Your task to perform on an android device: Open settings on Google Maps Image 0: 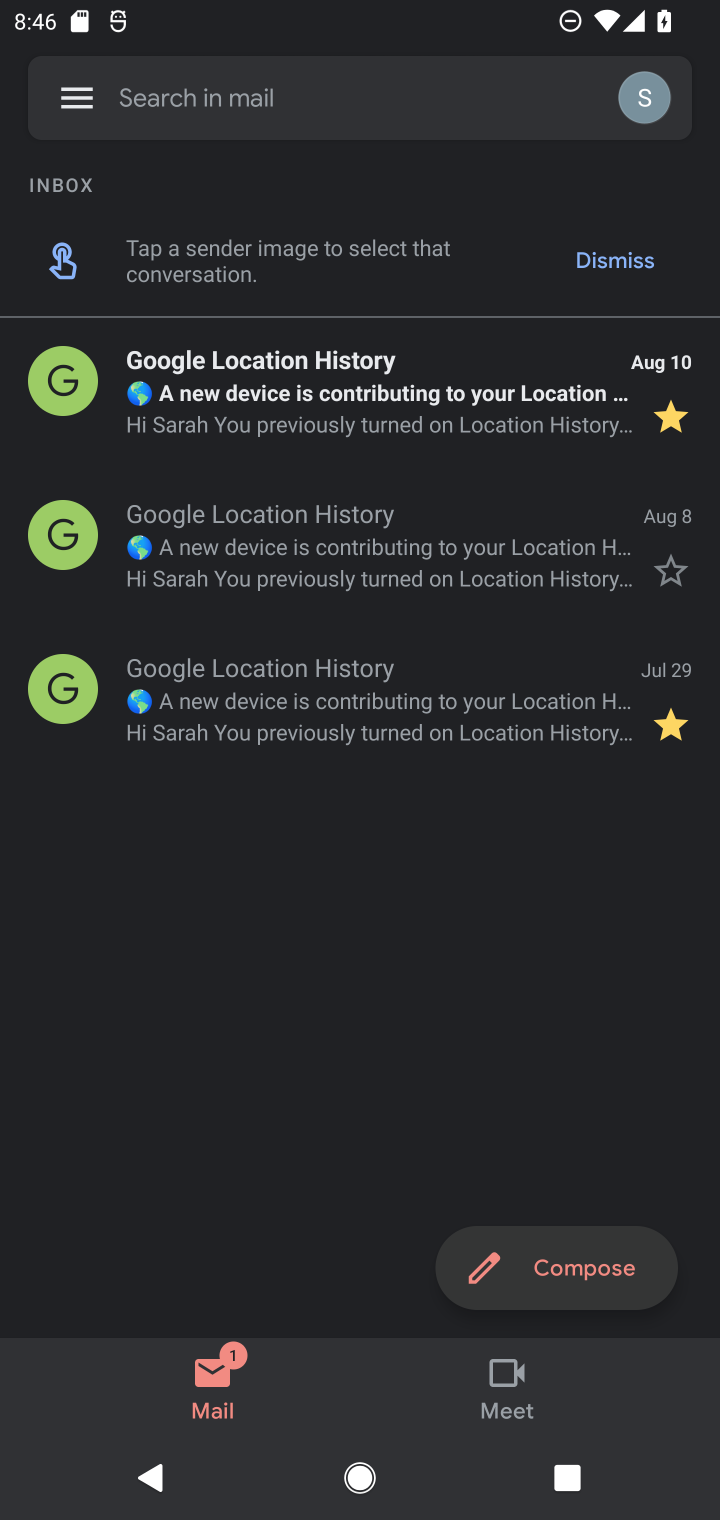
Step 0: press home button
Your task to perform on an android device: Open settings on Google Maps Image 1: 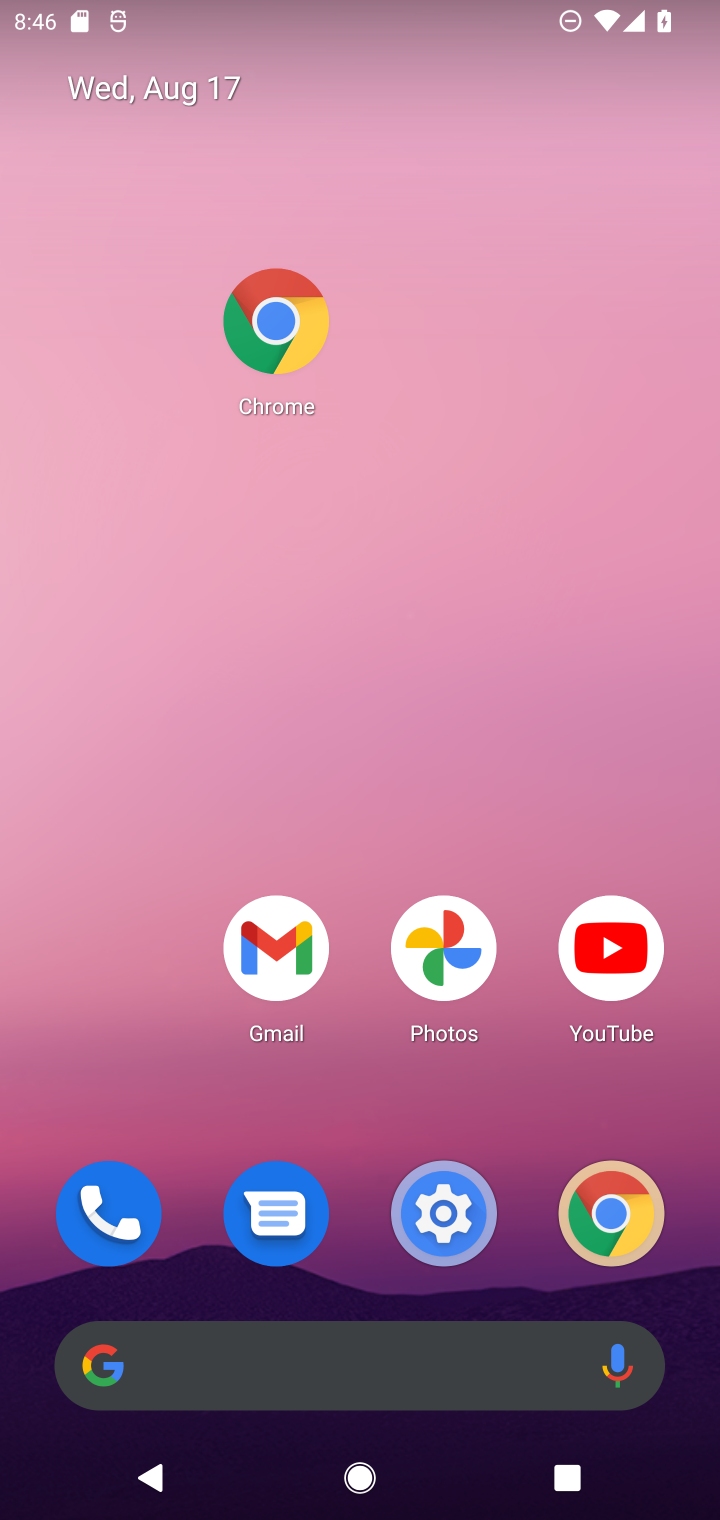
Step 1: drag from (386, 1270) to (575, 116)
Your task to perform on an android device: Open settings on Google Maps Image 2: 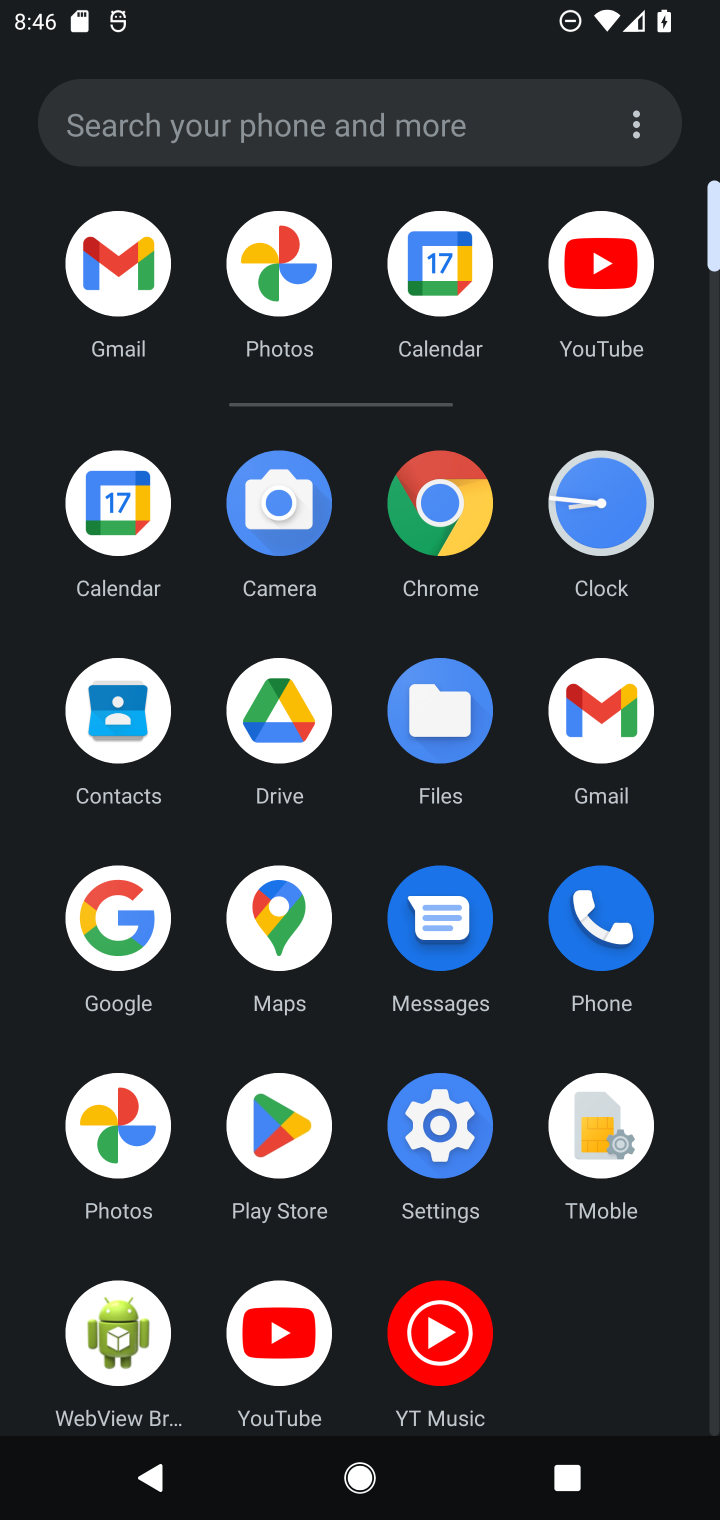
Step 2: click (277, 959)
Your task to perform on an android device: Open settings on Google Maps Image 3: 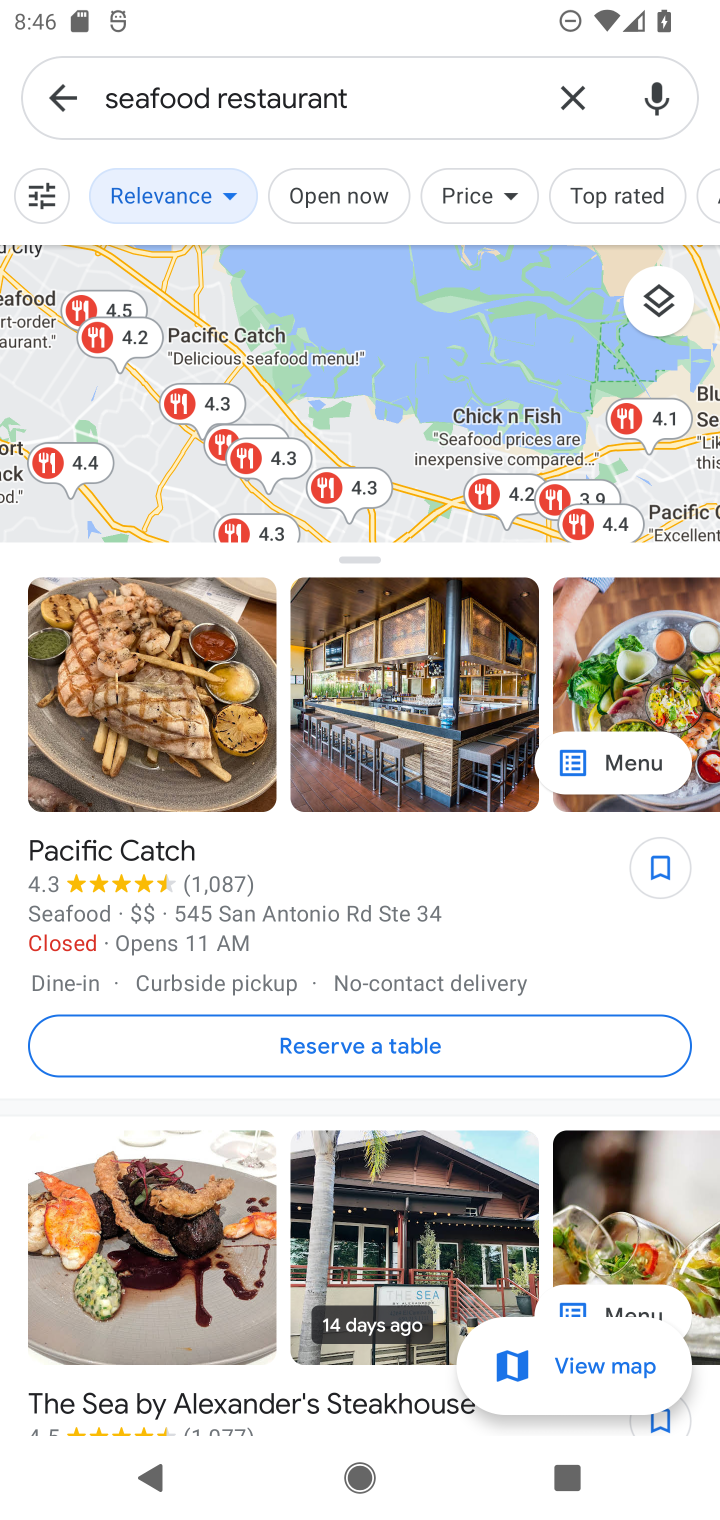
Step 3: click (58, 121)
Your task to perform on an android device: Open settings on Google Maps Image 4: 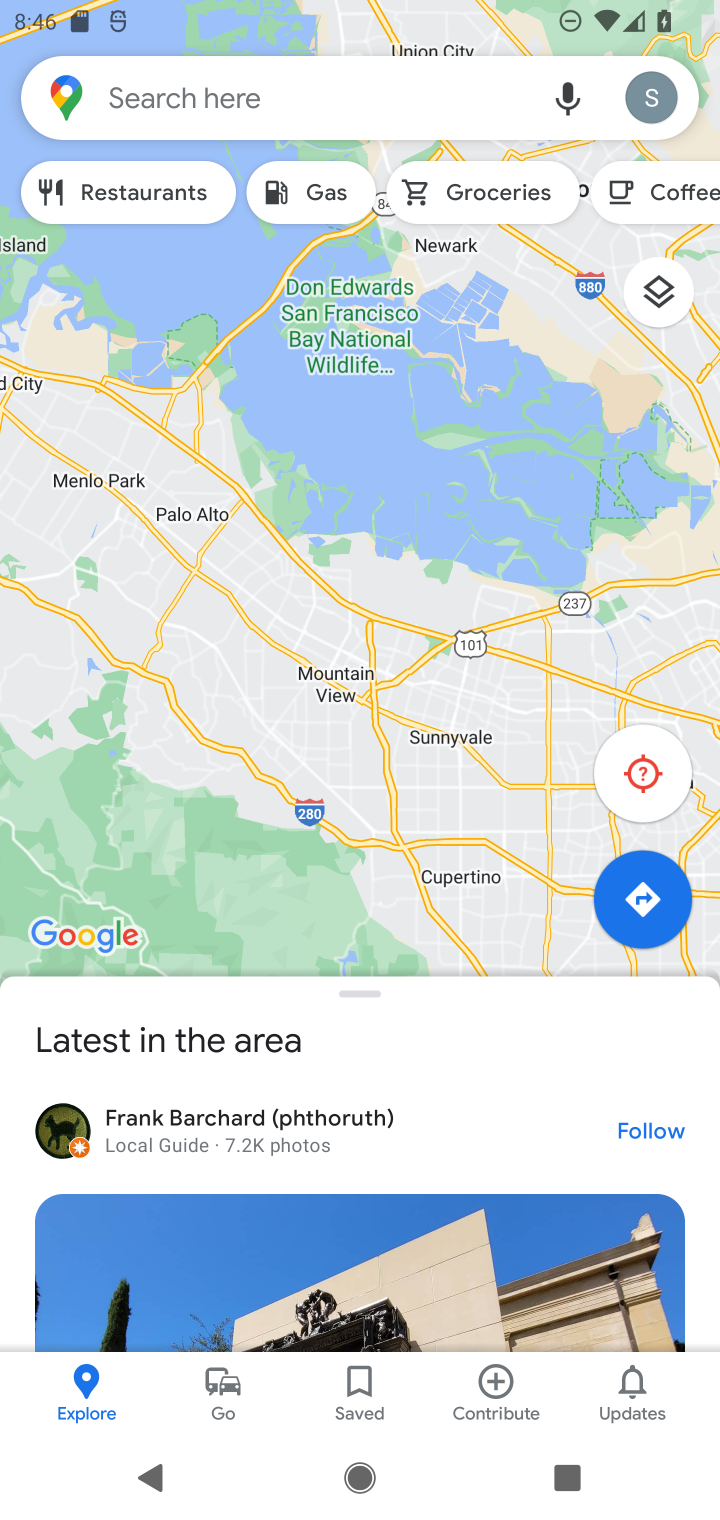
Step 4: click (58, 121)
Your task to perform on an android device: Open settings on Google Maps Image 5: 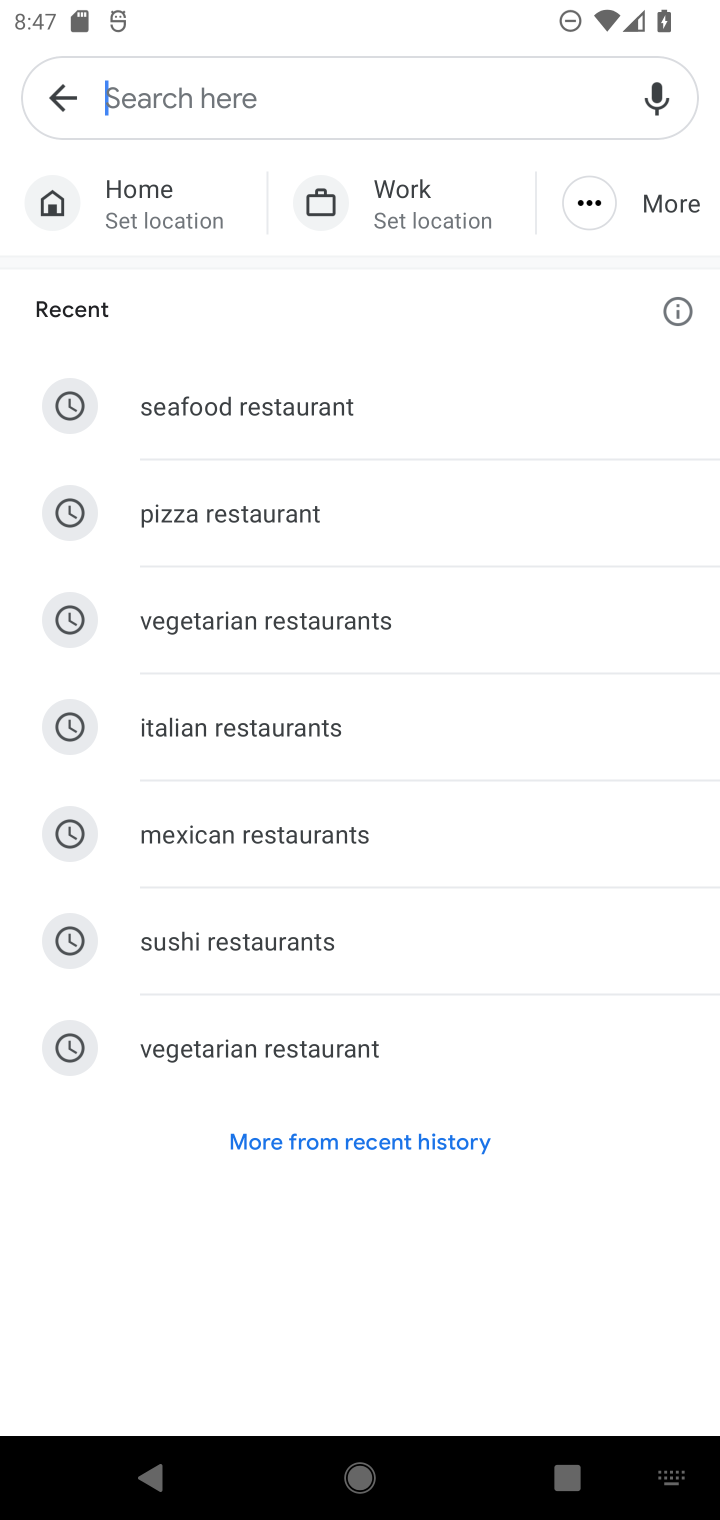
Step 5: click (58, 121)
Your task to perform on an android device: Open settings on Google Maps Image 6: 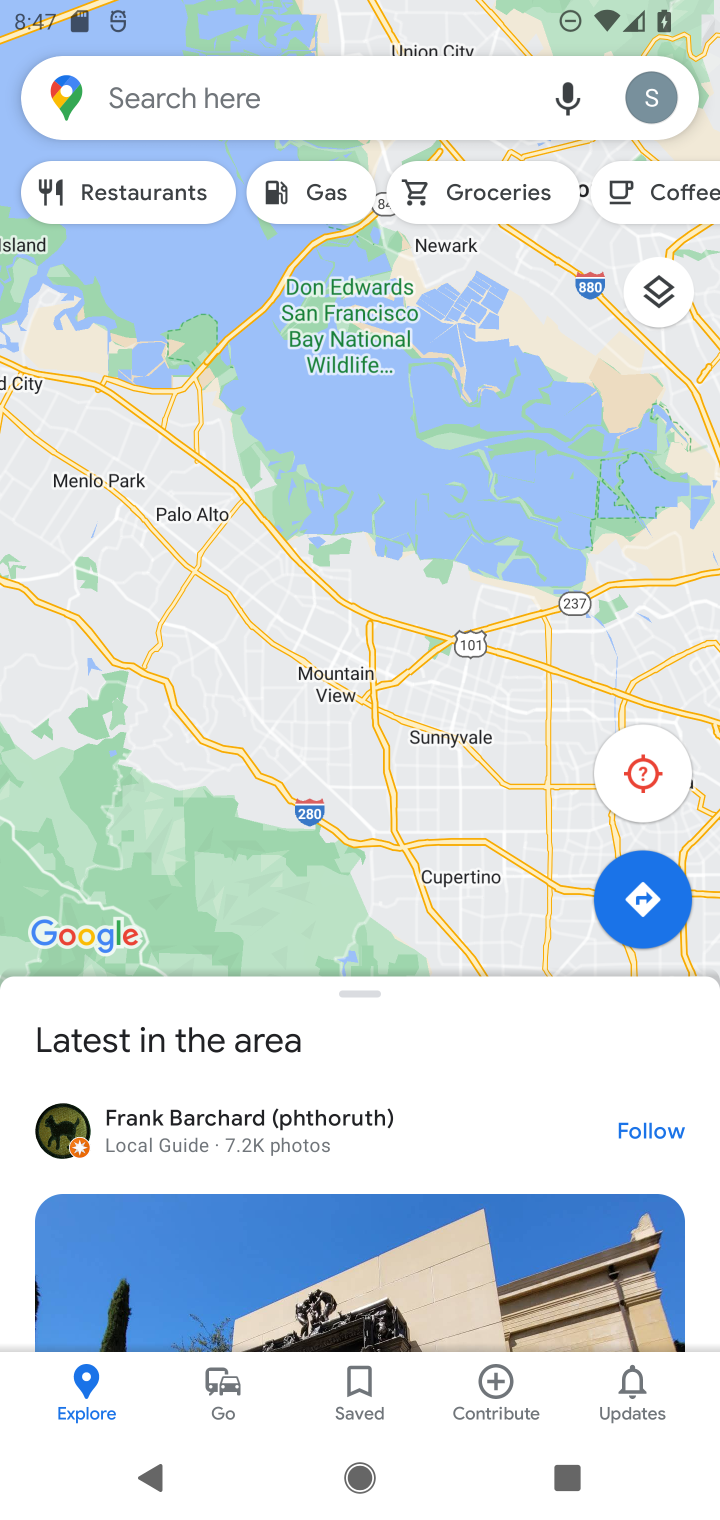
Step 6: click (650, 93)
Your task to perform on an android device: Open settings on Google Maps Image 7: 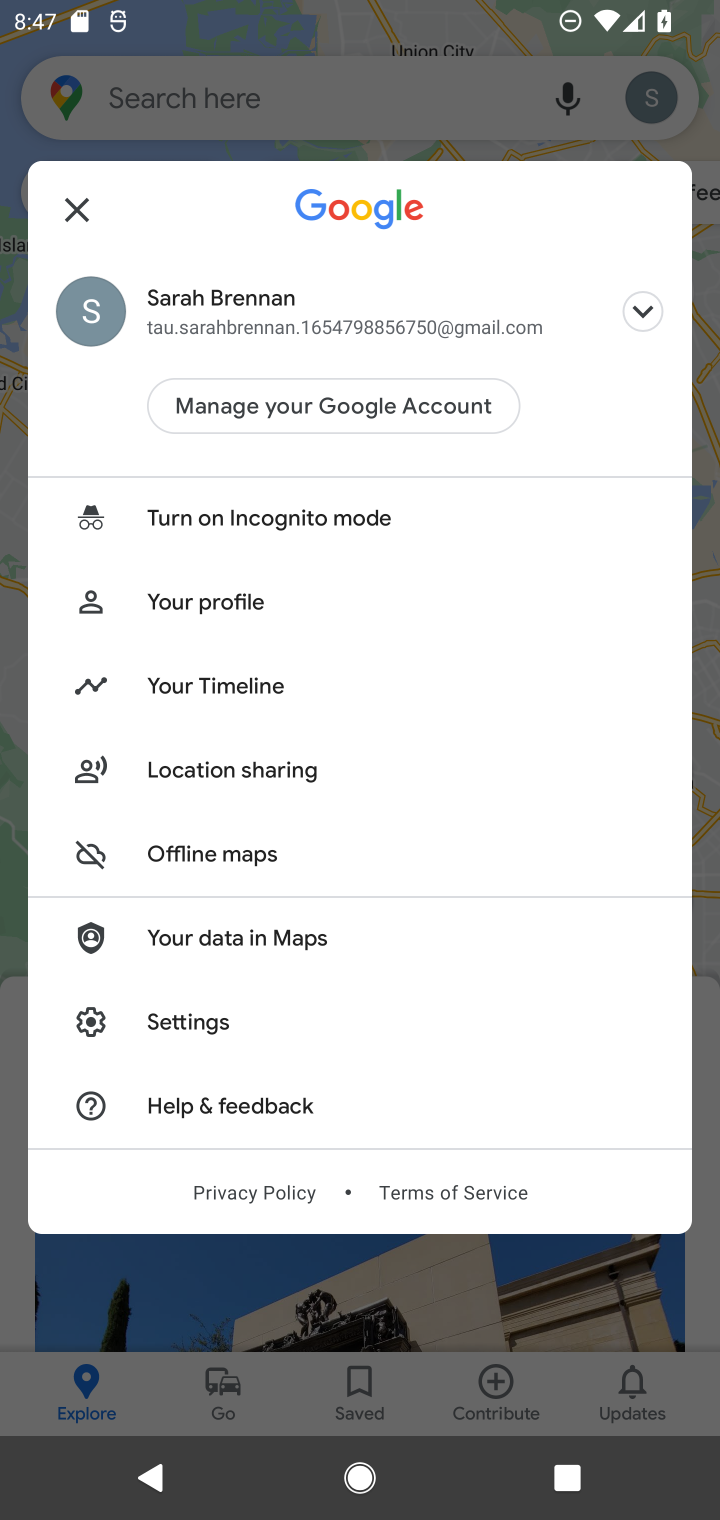
Step 7: click (236, 1024)
Your task to perform on an android device: Open settings on Google Maps Image 8: 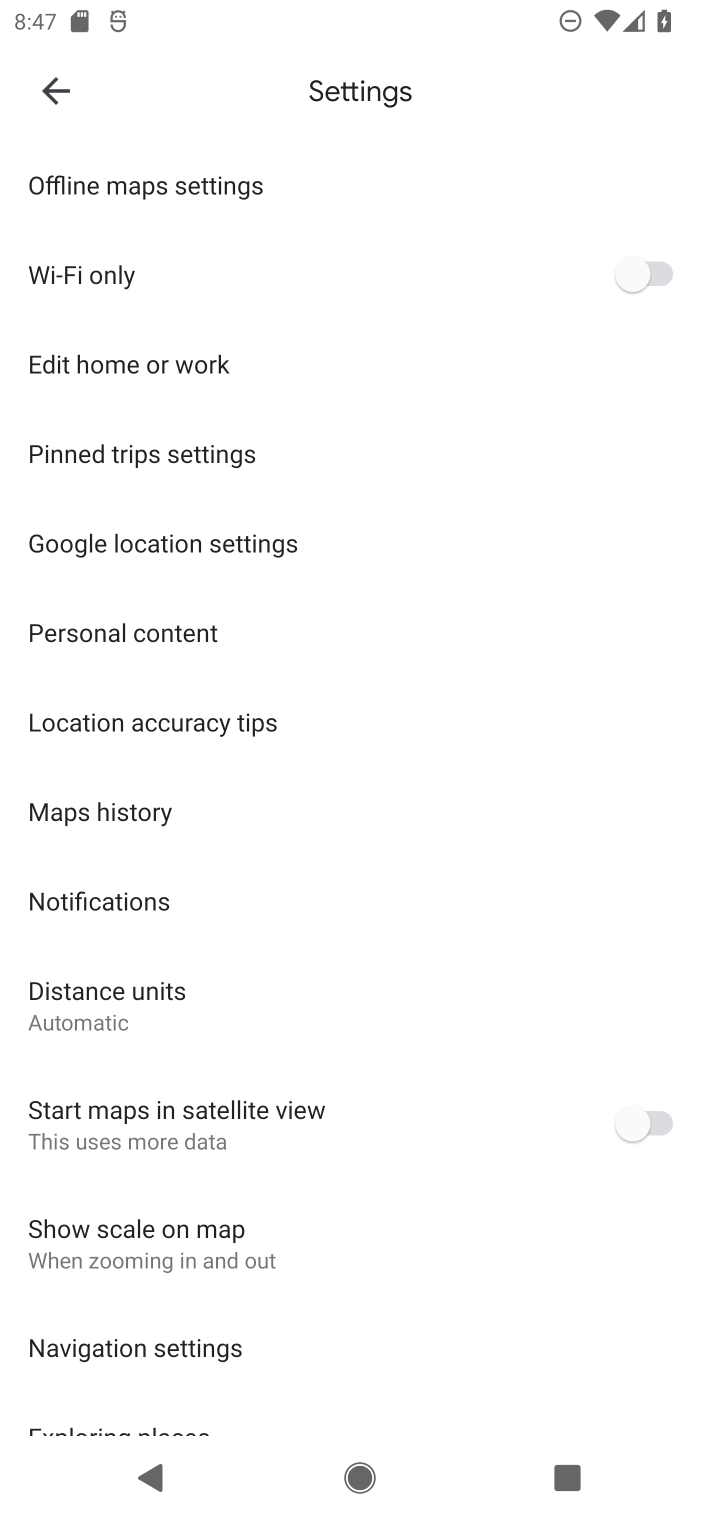
Step 8: task complete